Your task to perform on an android device: set default search engine in the chrome app Image 0: 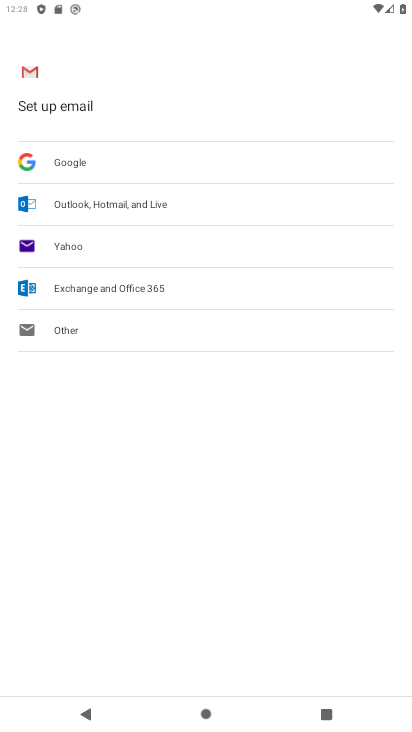
Step 0: press home button
Your task to perform on an android device: set default search engine in the chrome app Image 1: 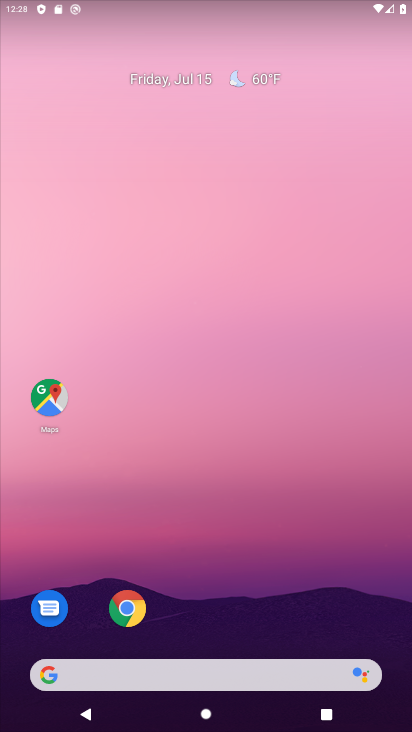
Step 1: drag from (254, 567) to (292, 95)
Your task to perform on an android device: set default search engine in the chrome app Image 2: 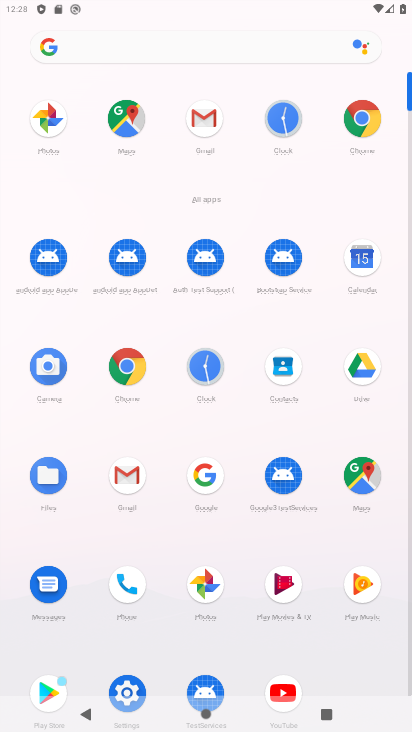
Step 2: click (121, 370)
Your task to perform on an android device: set default search engine in the chrome app Image 3: 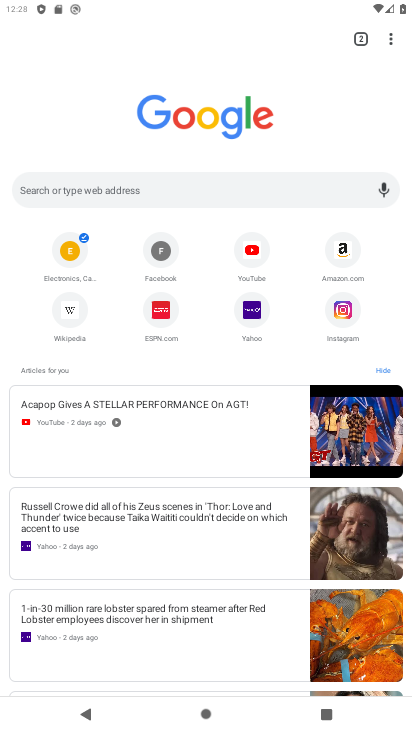
Step 3: drag from (387, 35) to (291, 329)
Your task to perform on an android device: set default search engine in the chrome app Image 4: 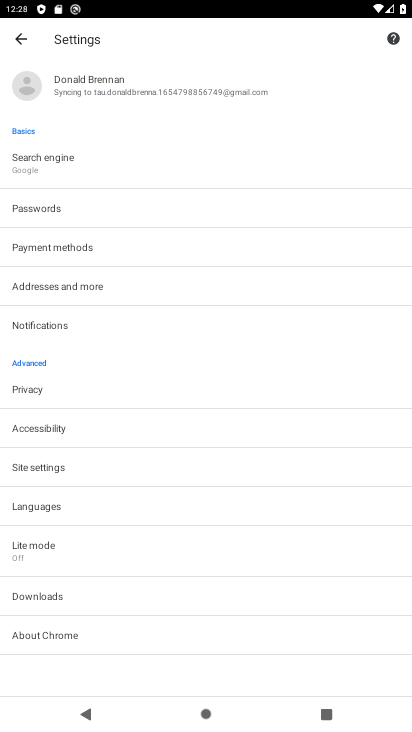
Step 4: click (32, 159)
Your task to perform on an android device: set default search engine in the chrome app Image 5: 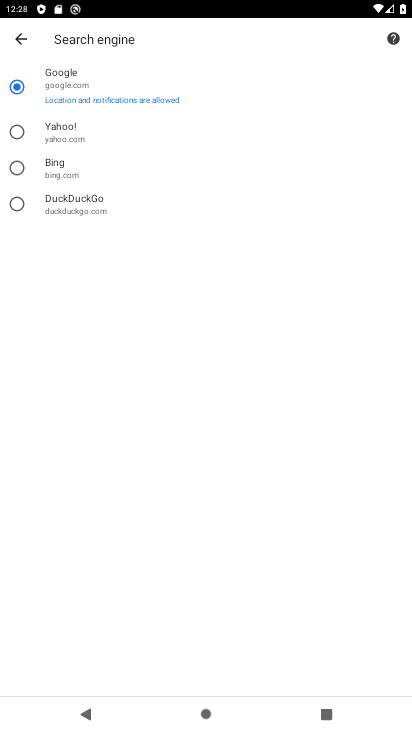
Step 5: task complete